Your task to perform on an android device: turn on airplane mode Image 0: 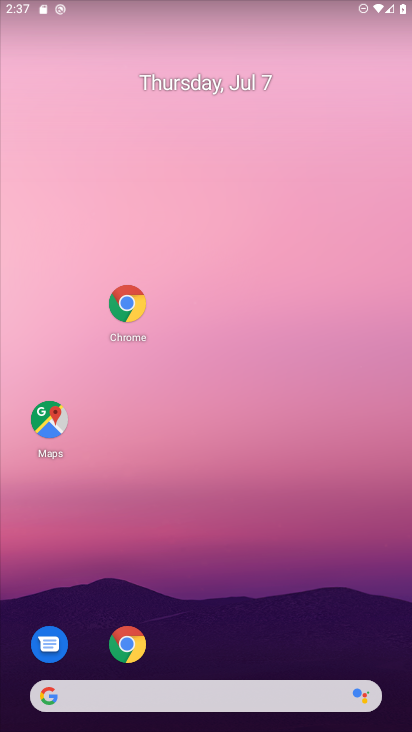
Step 0: drag from (282, 10) to (317, 705)
Your task to perform on an android device: turn on airplane mode Image 1: 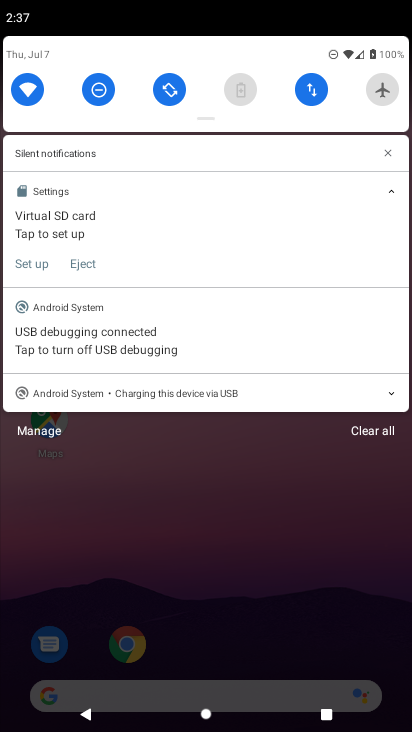
Step 1: drag from (264, 214) to (55, 624)
Your task to perform on an android device: turn on airplane mode Image 2: 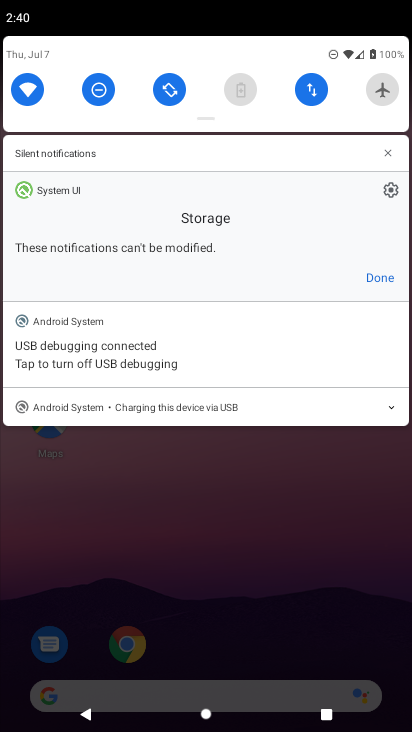
Step 2: click (389, 93)
Your task to perform on an android device: turn on airplane mode Image 3: 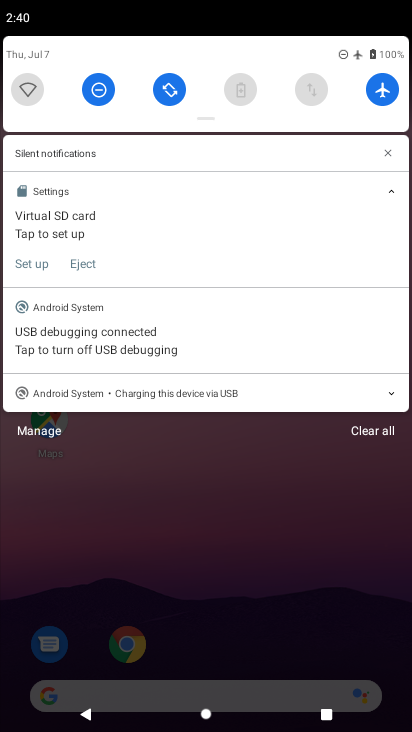
Step 3: task complete